Your task to perform on an android device: see sites visited before in the chrome app Image 0: 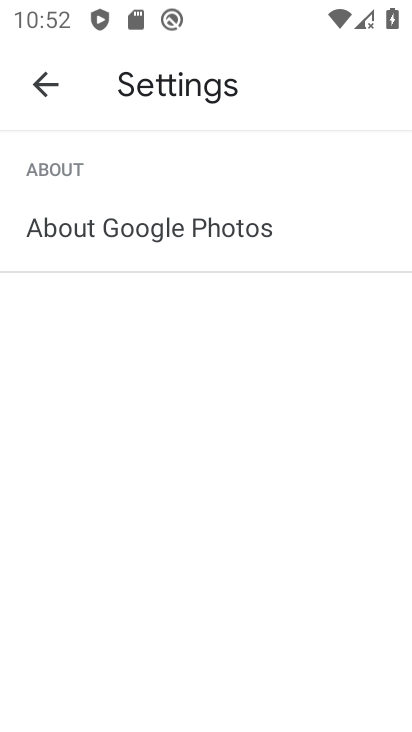
Step 0: press home button
Your task to perform on an android device: see sites visited before in the chrome app Image 1: 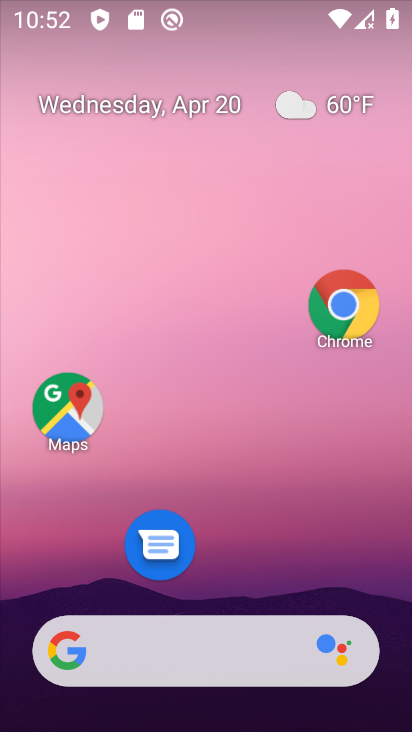
Step 1: drag from (227, 624) to (262, 305)
Your task to perform on an android device: see sites visited before in the chrome app Image 2: 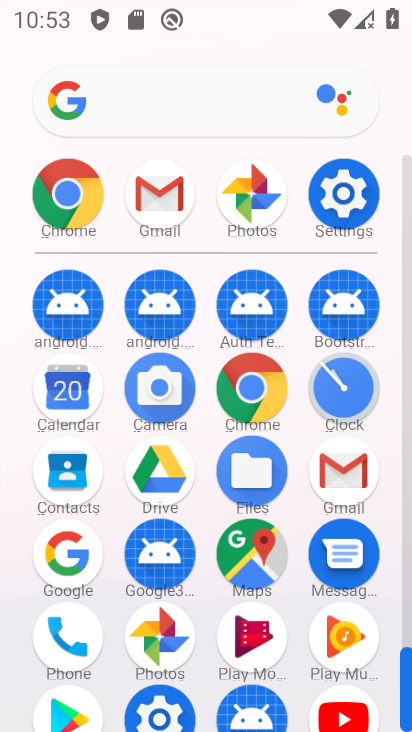
Step 2: click (71, 205)
Your task to perform on an android device: see sites visited before in the chrome app Image 3: 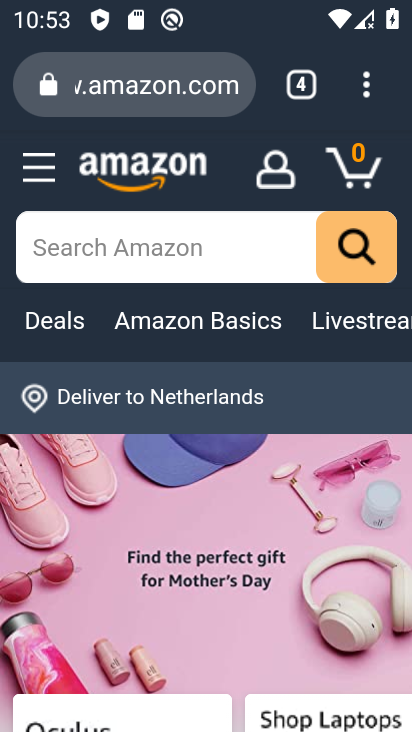
Step 3: click (373, 88)
Your task to perform on an android device: see sites visited before in the chrome app Image 4: 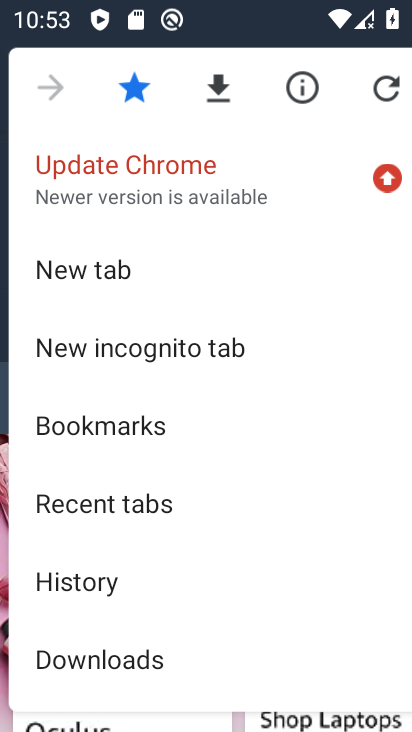
Step 4: click (107, 579)
Your task to perform on an android device: see sites visited before in the chrome app Image 5: 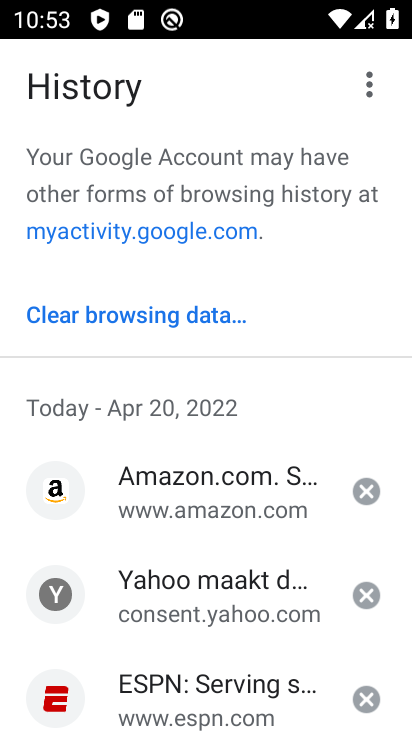
Step 5: task complete